Your task to perform on an android device: delete browsing data in the chrome app Image 0: 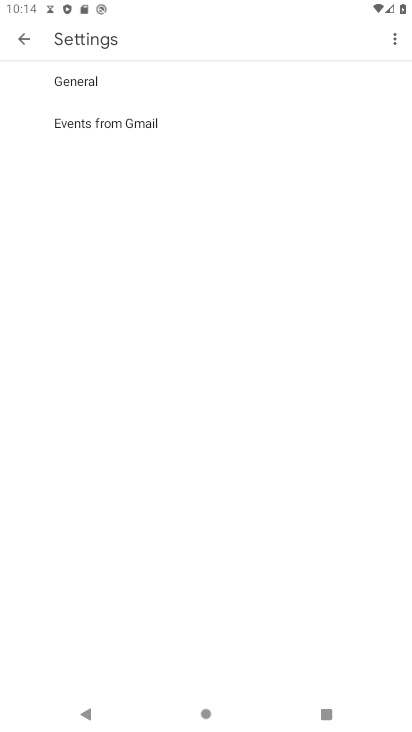
Step 0: press home button
Your task to perform on an android device: delete browsing data in the chrome app Image 1: 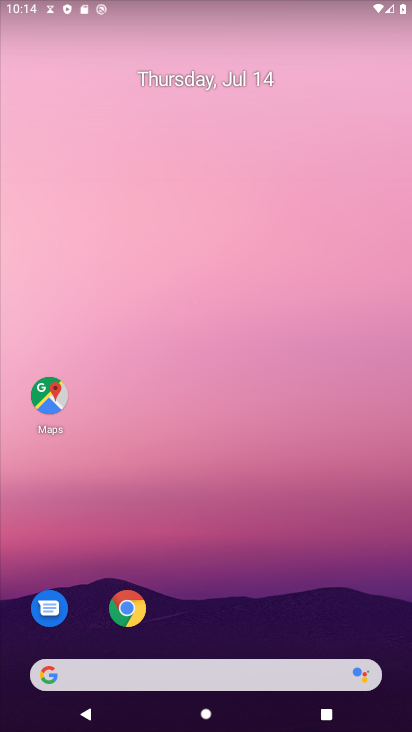
Step 1: click (128, 608)
Your task to perform on an android device: delete browsing data in the chrome app Image 2: 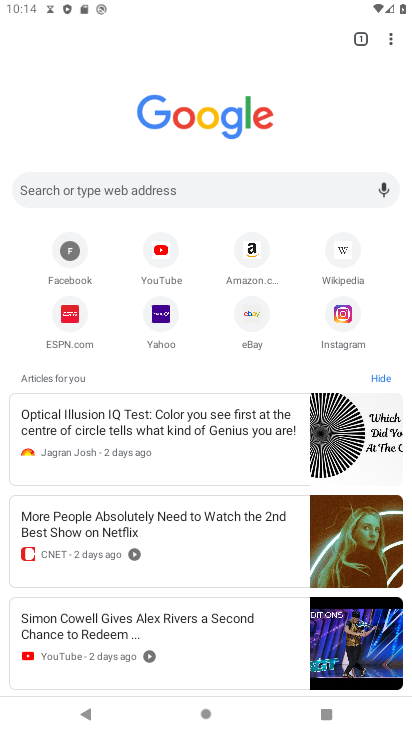
Step 2: click (388, 40)
Your task to perform on an android device: delete browsing data in the chrome app Image 3: 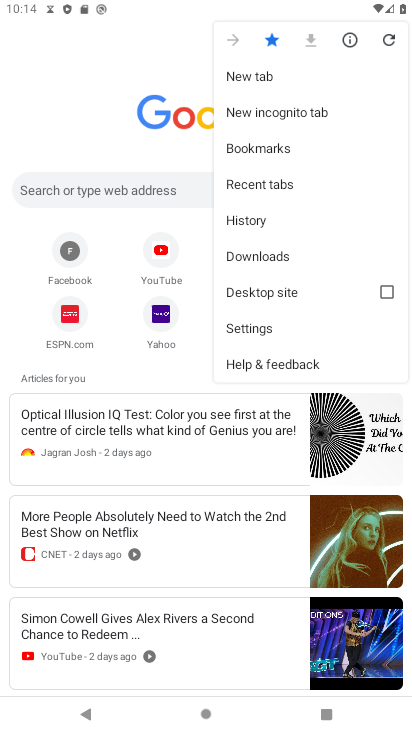
Step 3: click (245, 217)
Your task to perform on an android device: delete browsing data in the chrome app Image 4: 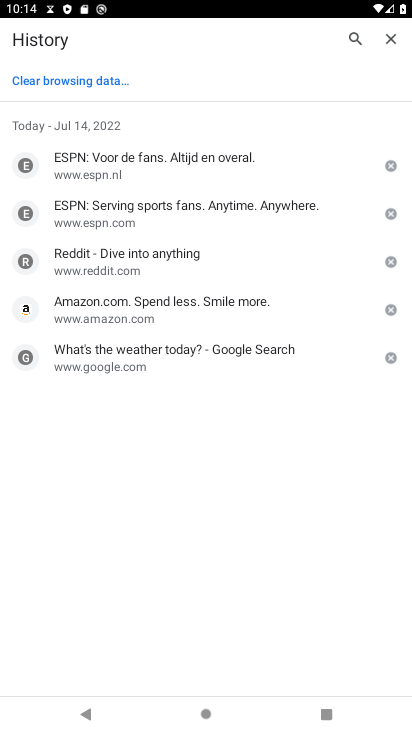
Step 4: click (51, 76)
Your task to perform on an android device: delete browsing data in the chrome app Image 5: 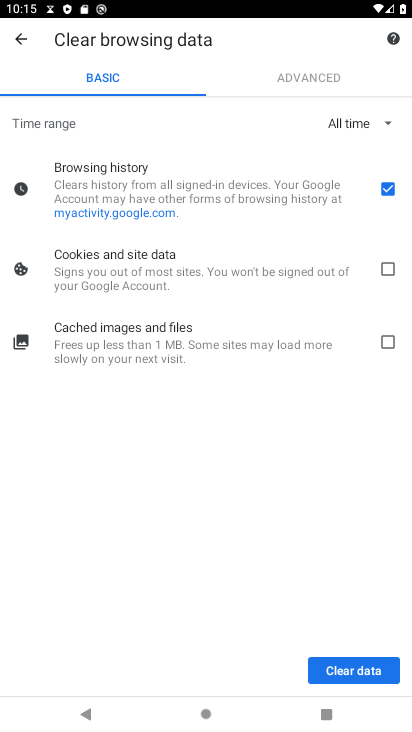
Step 5: click (326, 668)
Your task to perform on an android device: delete browsing data in the chrome app Image 6: 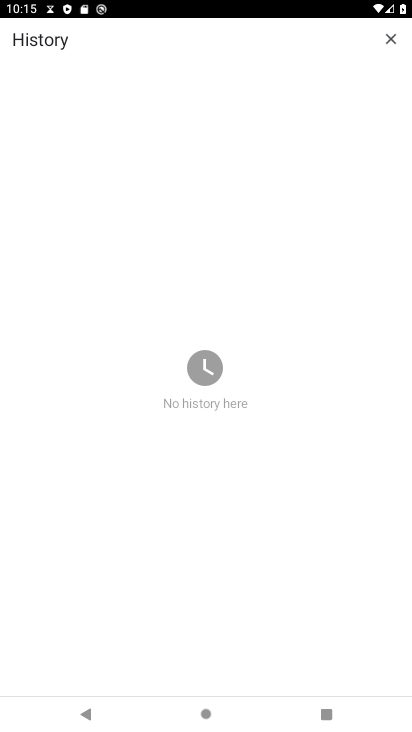
Step 6: task complete